Your task to perform on an android device: What's on my calendar today? Image 0: 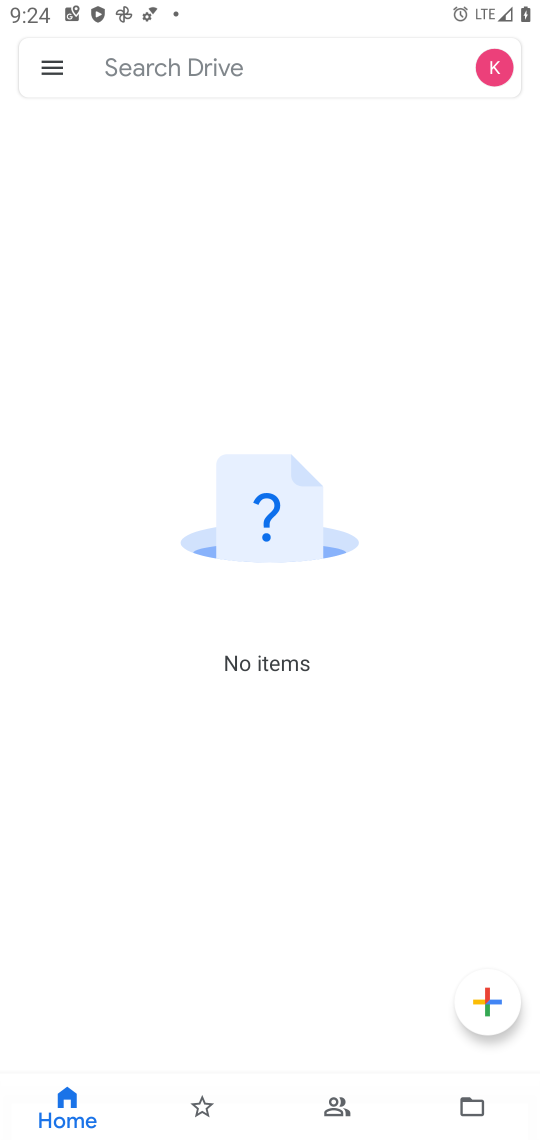
Step 0: press home button
Your task to perform on an android device: What's on my calendar today? Image 1: 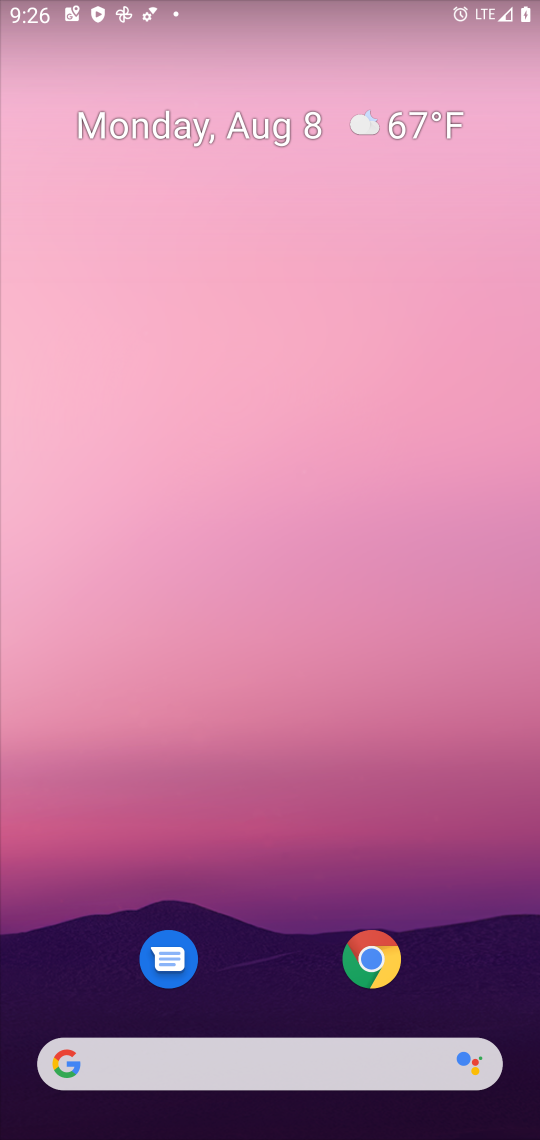
Step 1: drag from (509, 985) to (346, 0)
Your task to perform on an android device: What's on my calendar today? Image 2: 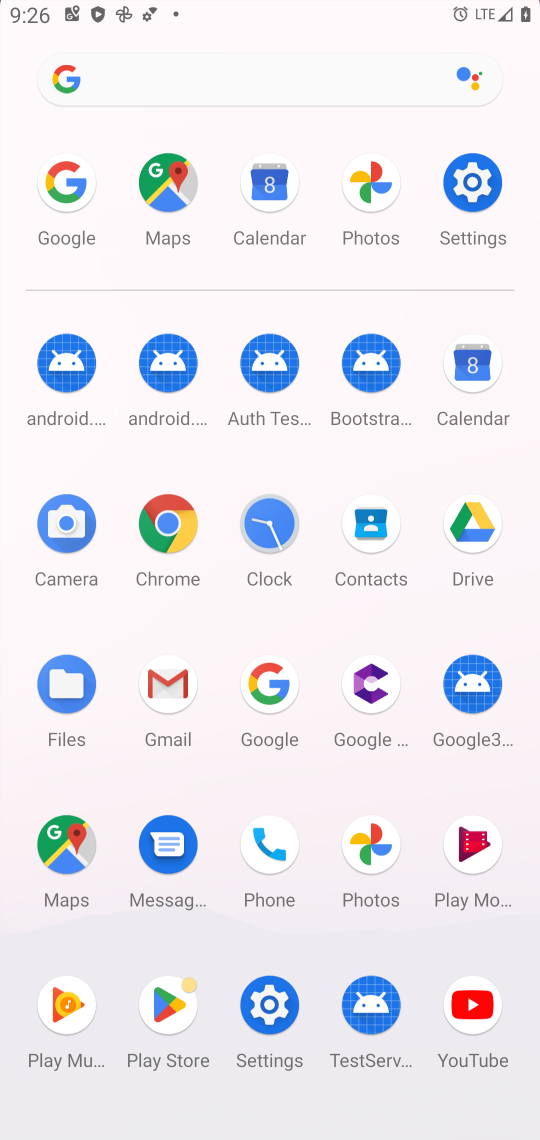
Step 2: click (454, 407)
Your task to perform on an android device: What's on my calendar today? Image 3: 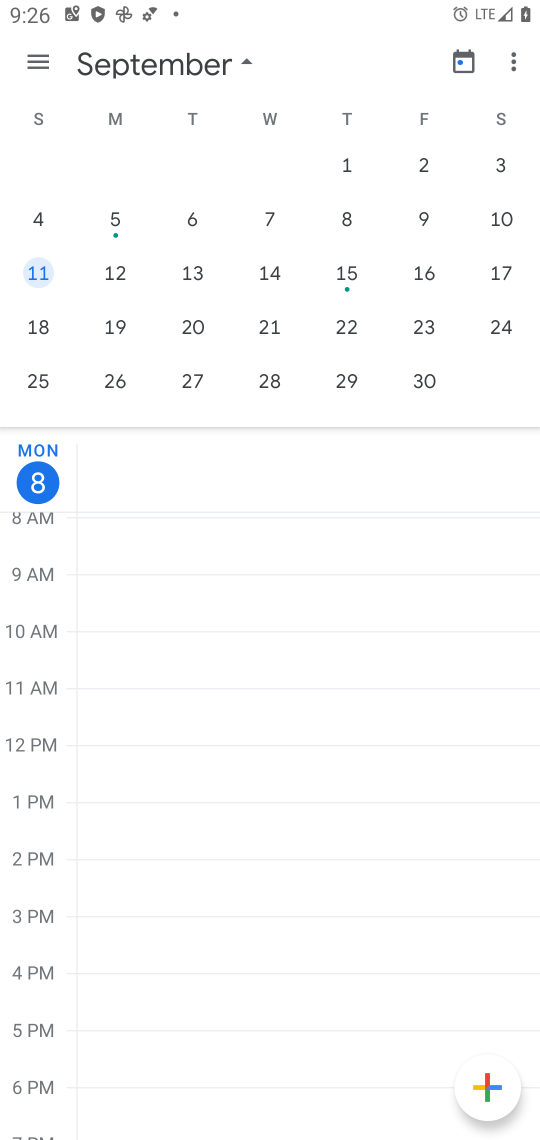
Step 3: task complete